Your task to perform on an android device: open device folders in google photos Image 0: 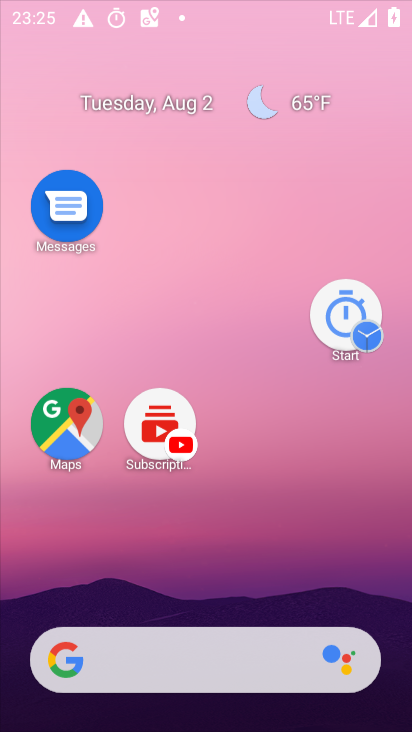
Step 0: press back button
Your task to perform on an android device: open device folders in google photos Image 1: 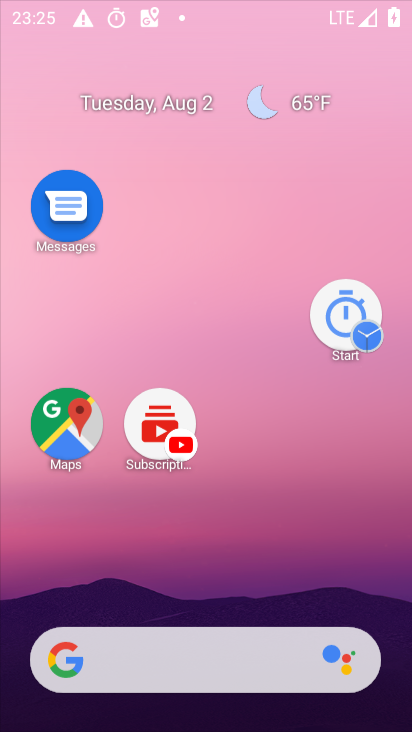
Step 1: drag from (236, 133) to (201, 237)
Your task to perform on an android device: open device folders in google photos Image 2: 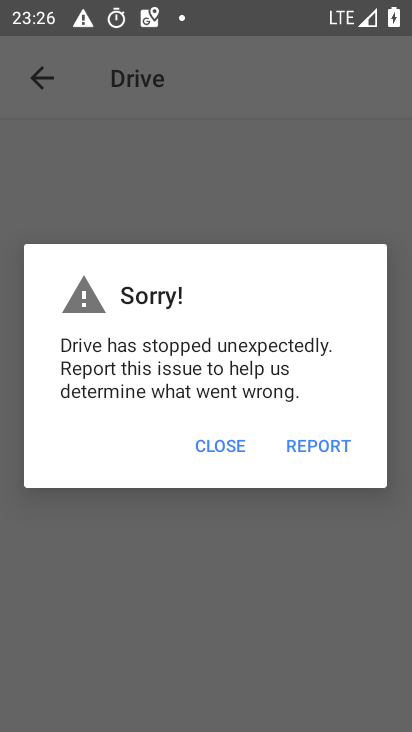
Step 2: click (230, 449)
Your task to perform on an android device: open device folders in google photos Image 3: 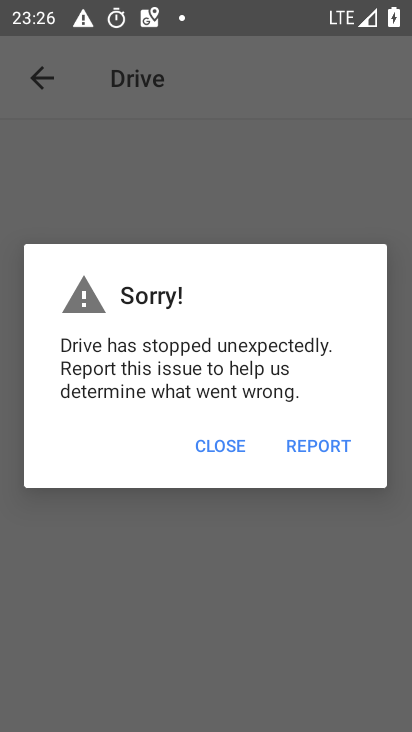
Step 3: click (229, 447)
Your task to perform on an android device: open device folders in google photos Image 4: 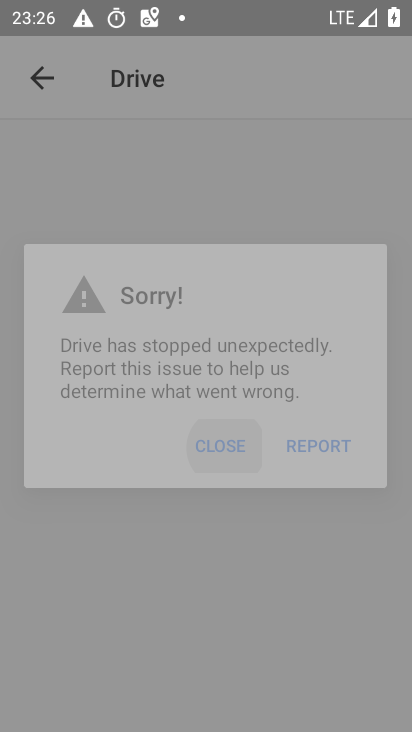
Step 4: click (226, 449)
Your task to perform on an android device: open device folders in google photos Image 5: 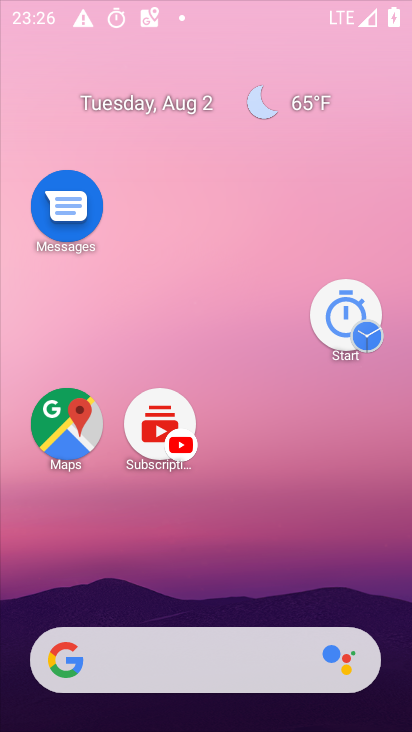
Step 5: click (32, 86)
Your task to perform on an android device: open device folders in google photos Image 6: 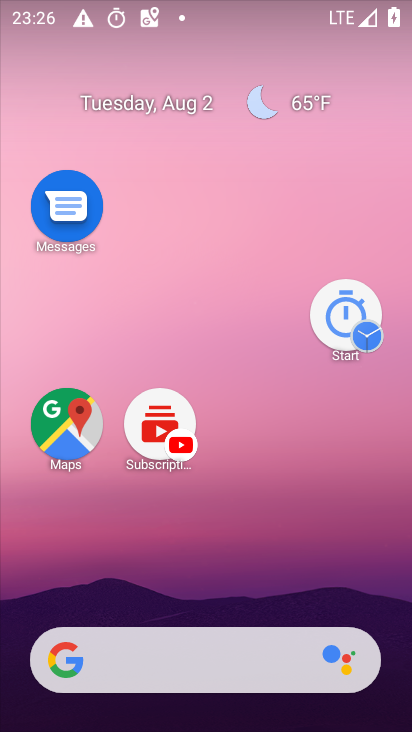
Step 6: drag from (209, 596) to (206, 204)
Your task to perform on an android device: open device folders in google photos Image 7: 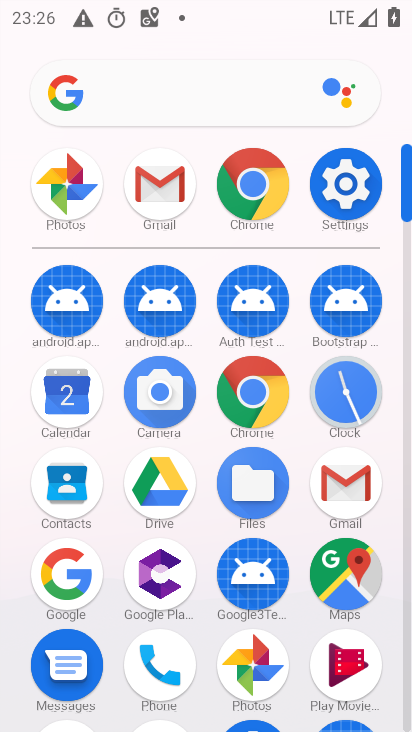
Step 7: click (58, 181)
Your task to perform on an android device: open device folders in google photos Image 8: 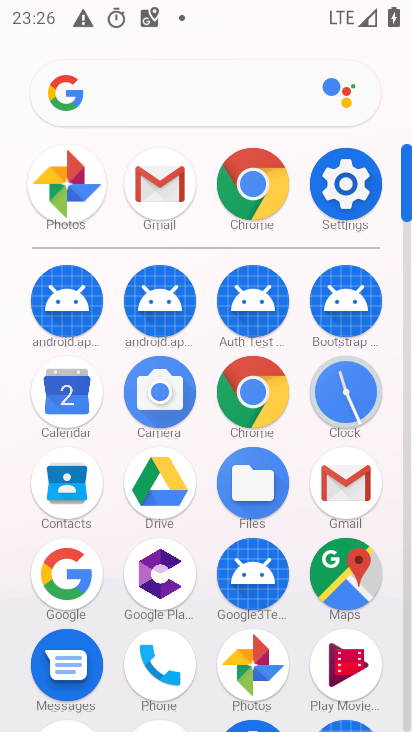
Step 8: click (56, 185)
Your task to perform on an android device: open device folders in google photos Image 9: 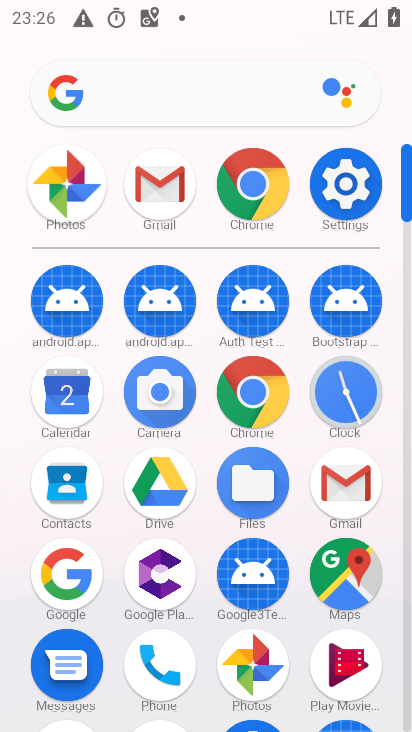
Step 9: click (57, 187)
Your task to perform on an android device: open device folders in google photos Image 10: 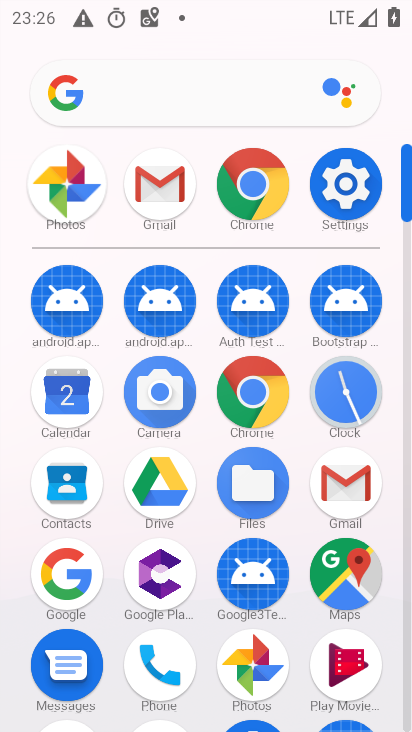
Step 10: click (58, 186)
Your task to perform on an android device: open device folders in google photos Image 11: 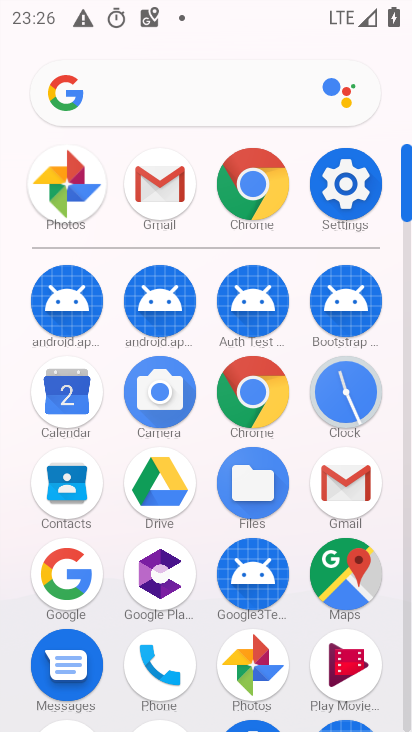
Step 11: click (58, 186)
Your task to perform on an android device: open device folders in google photos Image 12: 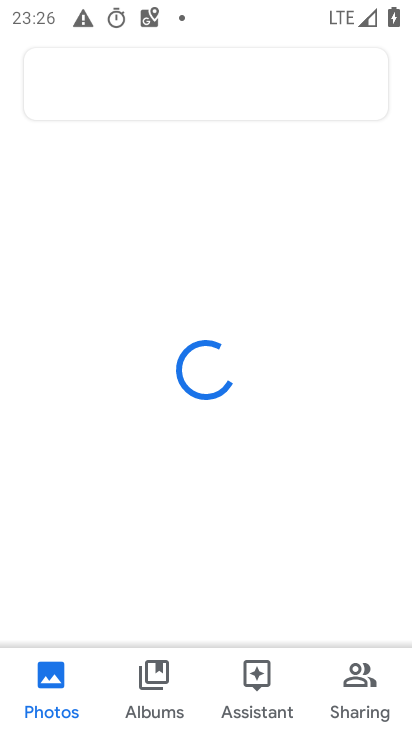
Step 12: click (65, 181)
Your task to perform on an android device: open device folders in google photos Image 13: 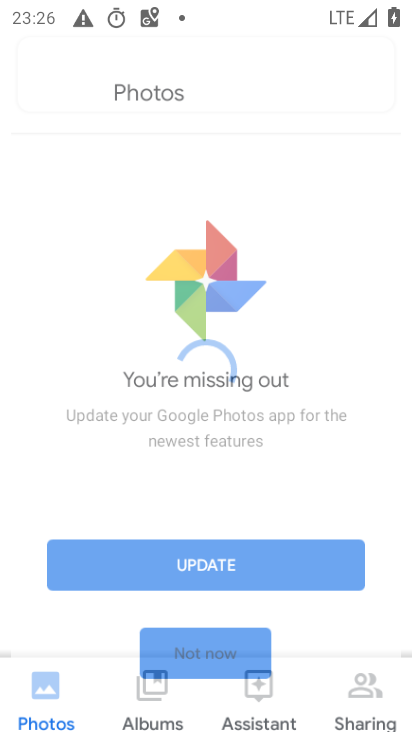
Step 13: click (65, 181)
Your task to perform on an android device: open device folders in google photos Image 14: 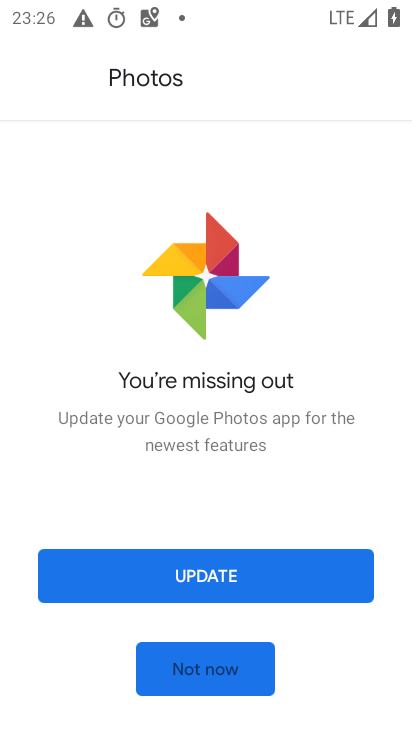
Step 14: click (226, 664)
Your task to perform on an android device: open device folders in google photos Image 15: 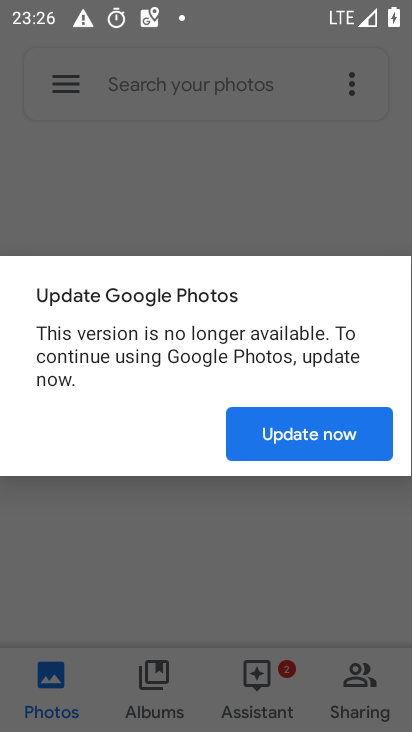
Step 15: click (290, 469)
Your task to perform on an android device: open device folders in google photos Image 16: 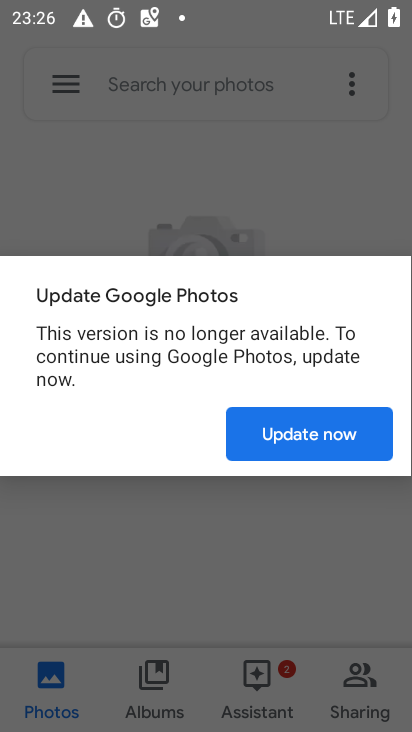
Step 16: click (301, 445)
Your task to perform on an android device: open device folders in google photos Image 17: 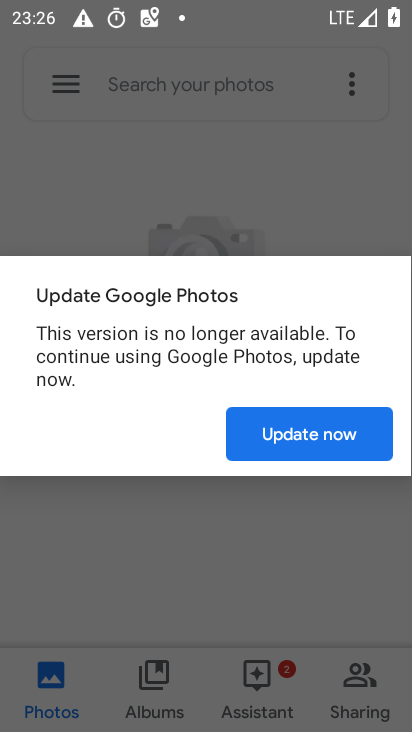
Step 17: click (302, 444)
Your task to perform on an android device: open device folders in google photos Image 18: 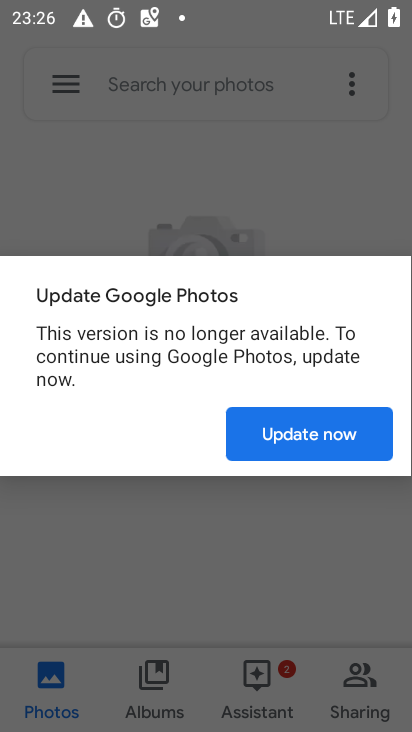
Step 18: click (302, 443)
Your task to perform on an android device: open device folders in google photos Image 19: 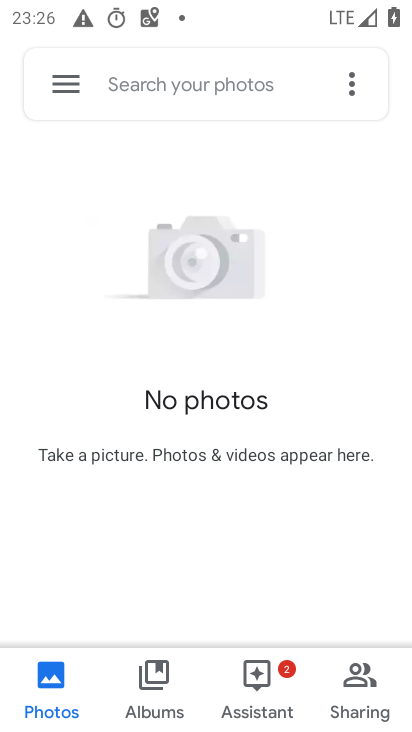
Step 19: click (70, 86)
Your task to perform on an android device: open device folders in google photos Image 20: 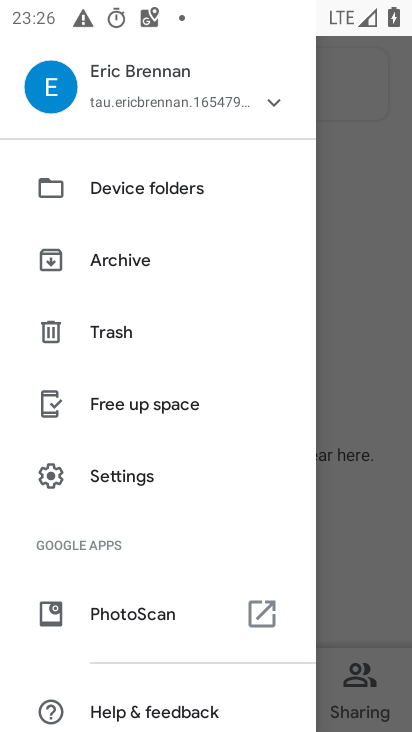
Step 20: click (119, 187)
Your task to perform on an android device: open device folders in google photos Image 21: 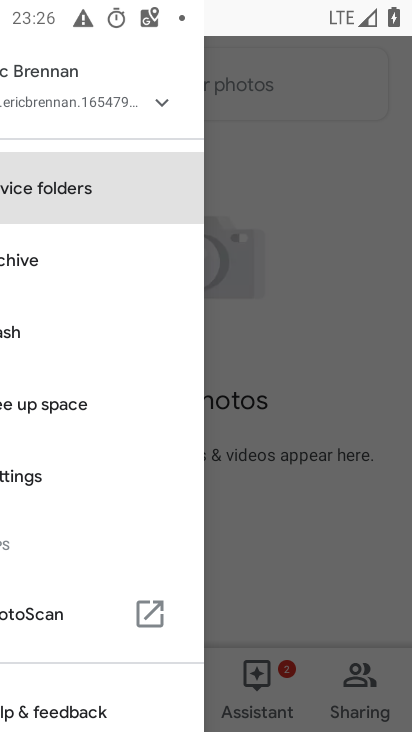
Step 21: task complete